Your task to perform on an android device: Set the phone to "Do not disturb". Image 0: 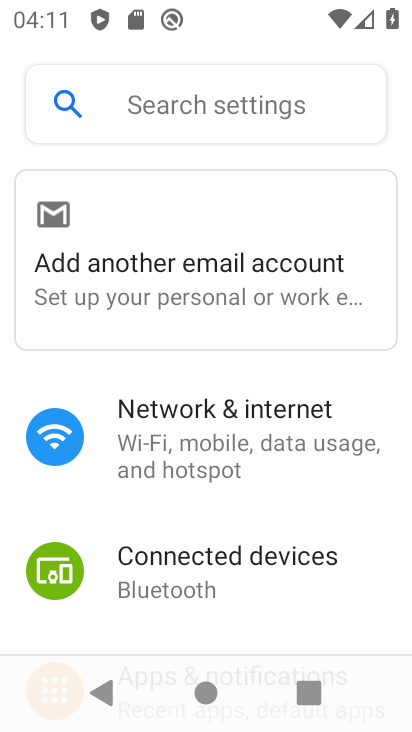
Step 0: drag from (244, 582) to (247, 354)
Your task to perform on an android device: Set the phone to "Do not disturb". Image 1: 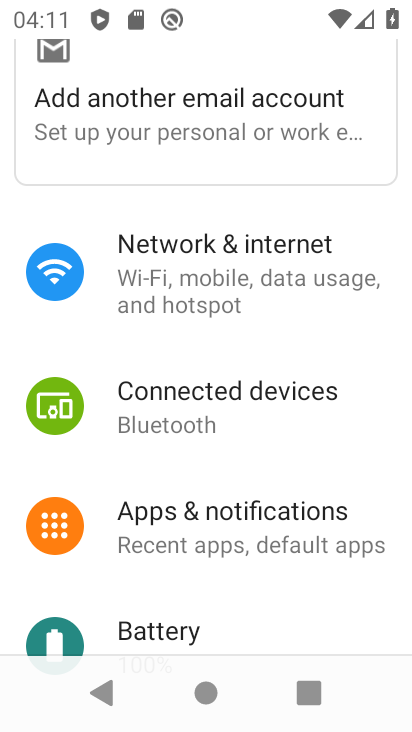
Step 1: drag from (280, 552) to (274, 266)
Your task to perform on an android device: Set the phone to "Do not disturb". Image 2: 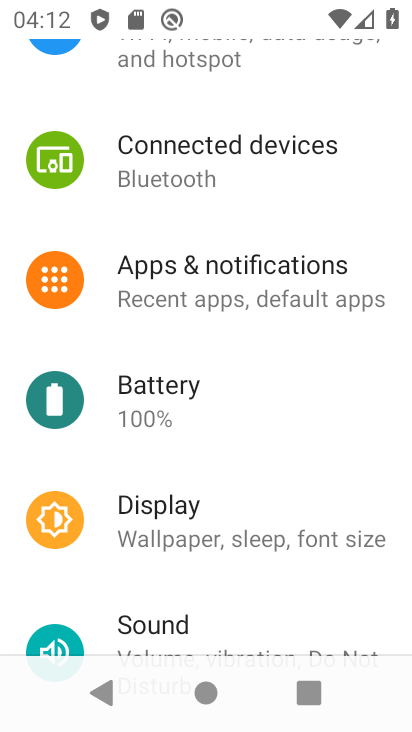
Step 2: drag from (190, 551) to (251, 239)
Your task to perform on an android device: Set the phone to "Do not disturb". Image 3: 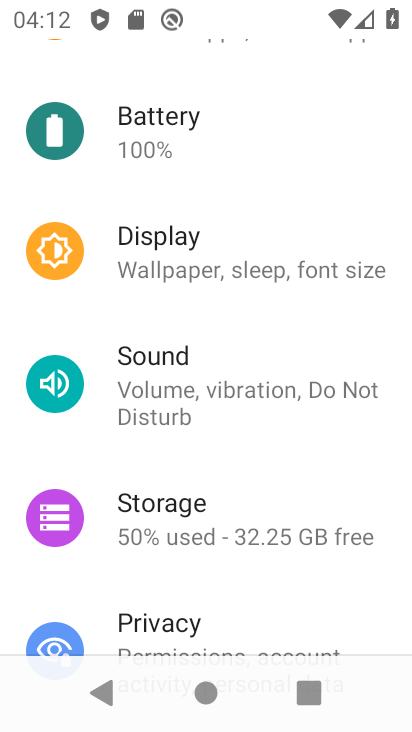
Step 3: click (161, 395)
Your task to perform on an android device: Set the phone to "Do not disturb". Image 4: 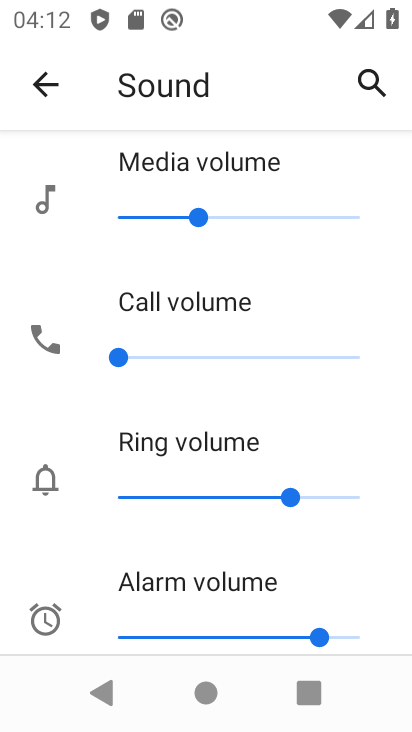
Step 4: drag from (349, 597) to (359, 188)
Your task to perform on an android device: Set the phone to "Do not disturb". Image 5: 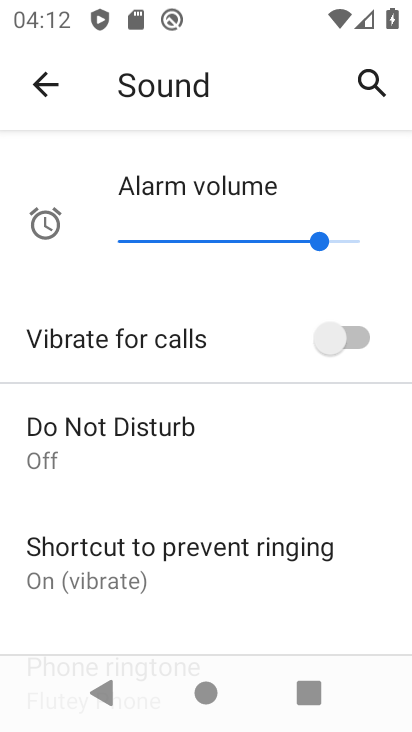
Step 5: click (69, 436)
Your task to perform on an android device: Set the phone to "Do not disturb". Image 6: 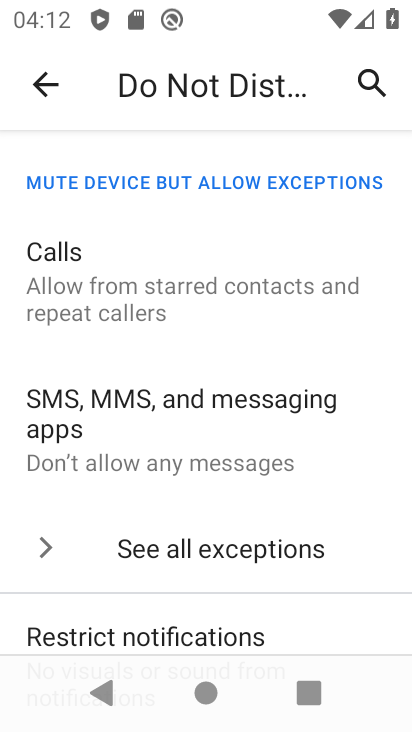
Step 6: drag from (319, 606) to (352, 230)
Your task to perform on an android device: Set the phone to "Do not disturb". Image 7: 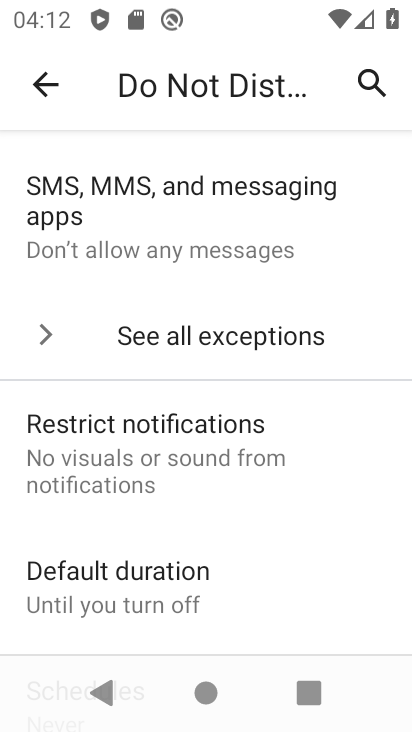
Step 7: drag from (312, 552) to (347, 144)
Your task to perform on an android device: Set the phone to "Do not disturb". Image 8: 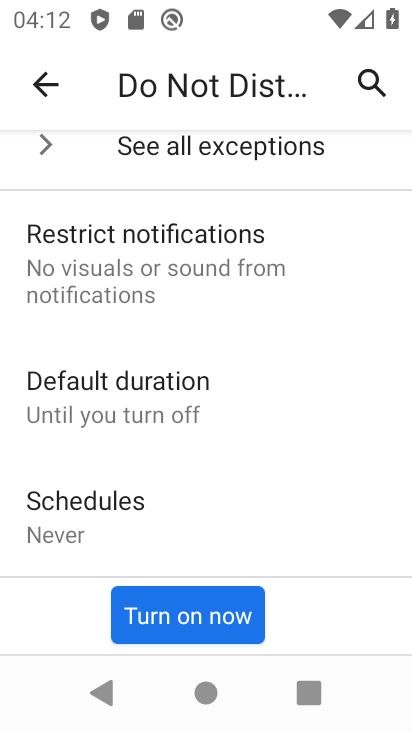
Step 8: click (170, 621)
Your task to perform on an android device: Set the phone to "Do not disturb". Image 9: 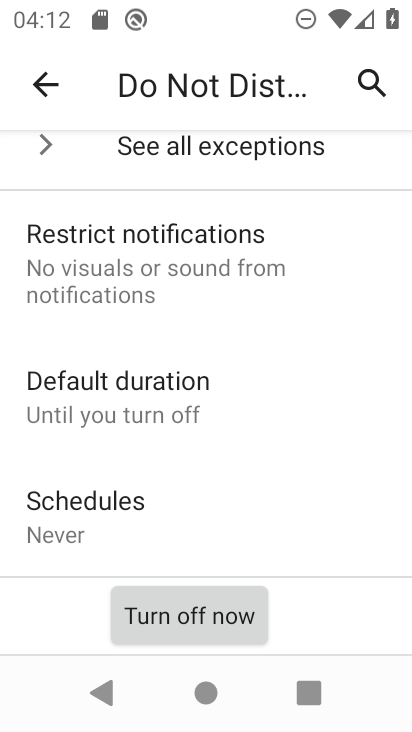
Step 9: task complete